Your task to perform on an android device: Go to Android settings Image 0: 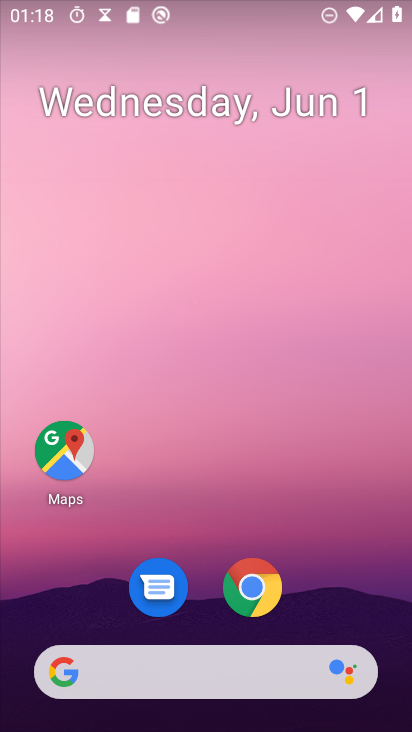
Step 0: drag from (328, 570) to (257, 25)
Your task to perform on an android device: Go to Android settings Image 1: 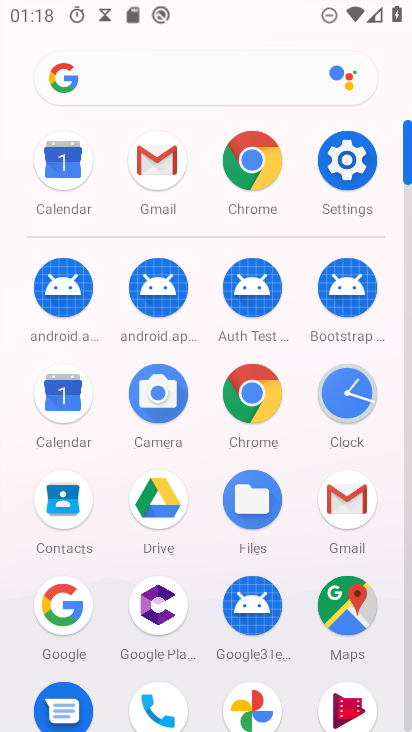
Step 1: click (340, 167)
Your task to perform on an android device: Go to Android settings Image 2: 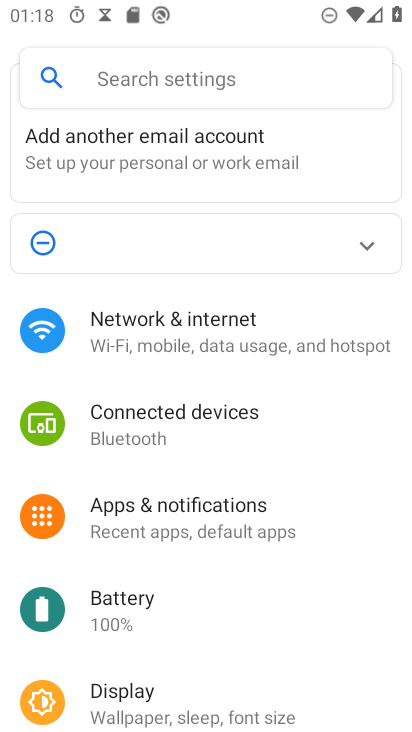
Step 2: drag from (200, 623) to (220, 135)
Your task to perform on an android device: Go to Android settings Image 3: 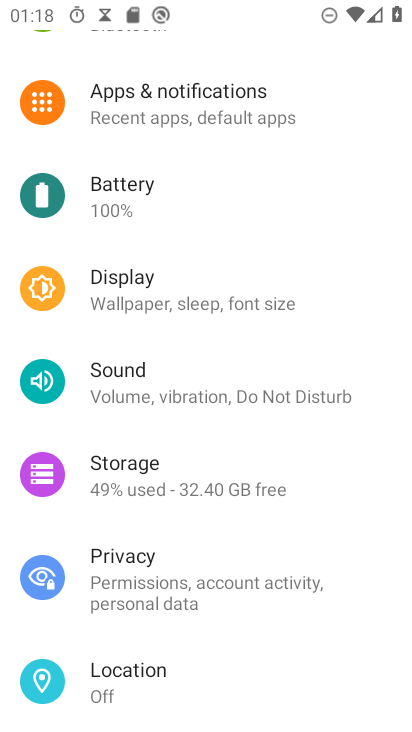
Step 3: drag from (223, 545) to (227, 3)
Your task to perform on an android device: Go to Android settings Image 4: 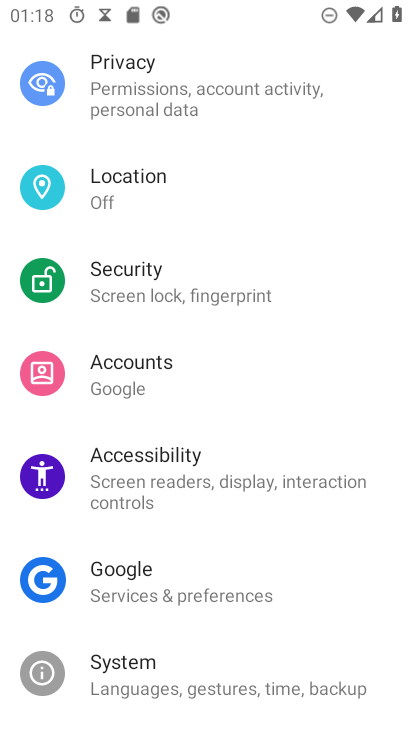
Step 4: drag from (221, 527) to (223, 8)
Your task to perform on an android device: Go to Android settings Image 5: 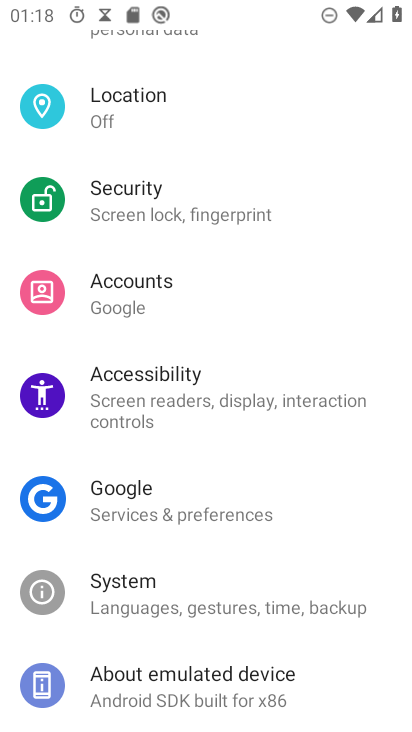
Step 5: drag from (238, 429) to (258, 0)
Your task to perform on an android device: Go to Android settings Image 6: 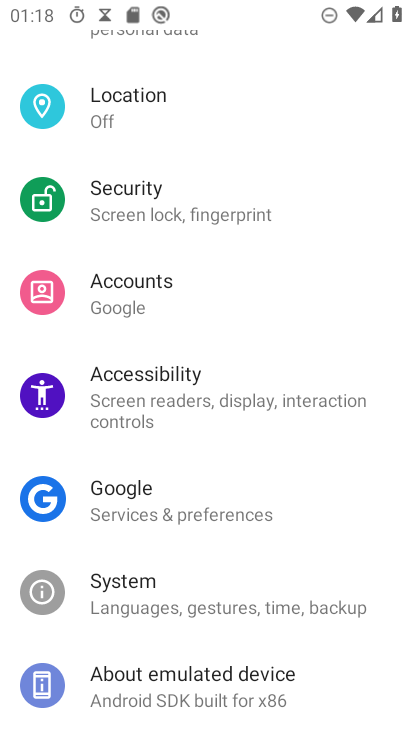
Step 6: click (195, 614)
Your task to perform on an android device: Go to Android settings Image 7: 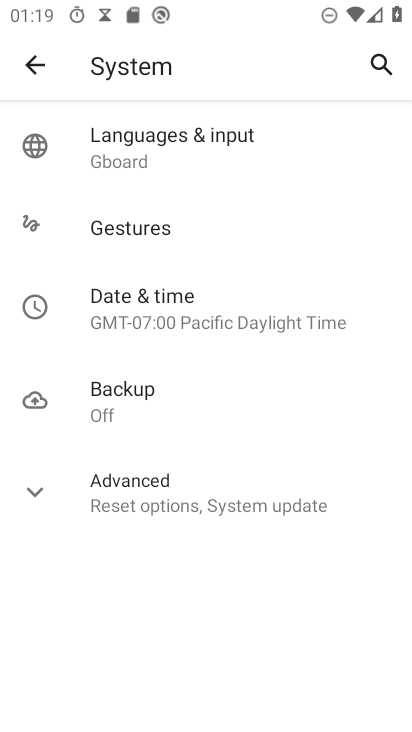
Step 7: task complete